Your task to perform on an android device: Open calendar and show me the second week of next month Image 0: 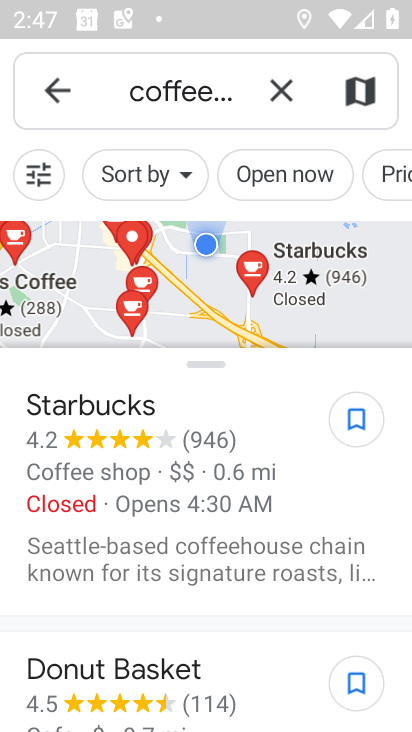
Step 0: press home button
Your task to perform on an android device: Open calendar and show me the second week of next month Image 1: 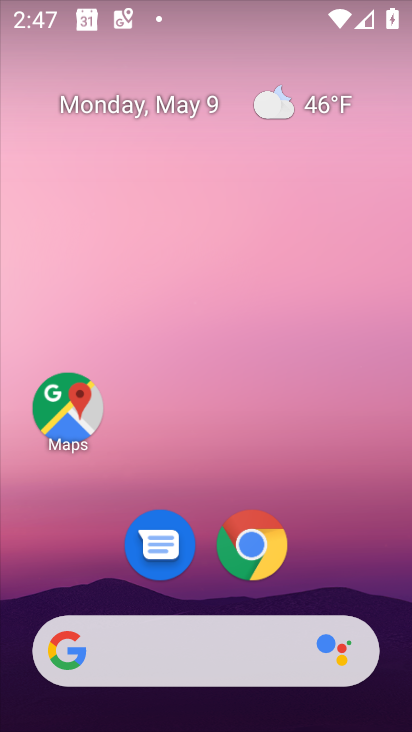
Step 1: drag from (190, 597) to (193, 274)
Your task to perform on an android device: Open calendar and show me the second week of next month Image 2: 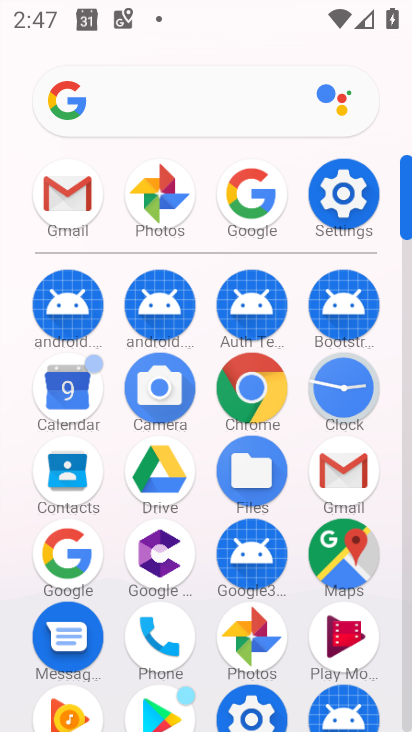
Step 2: click (71, 395)
Your task to perform on an android device: Open calendar and show me the second week of next month Image 3: 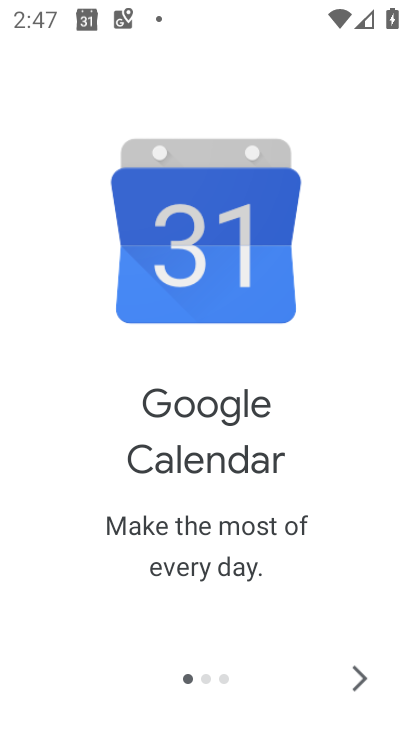
Step 3: click (361, 679)
Your task to perform on an android device: Open calendar and show me the second week of next month Image 4: 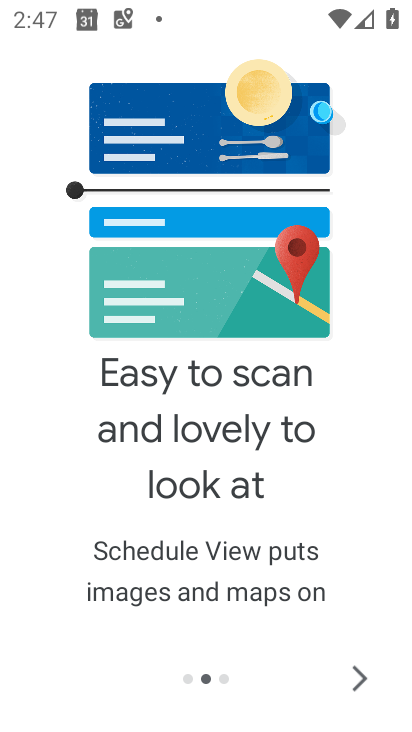
Step 4: click (361, 679)
Your task to perform on an android device: Open calendar and show me the second week of next month Image 5: 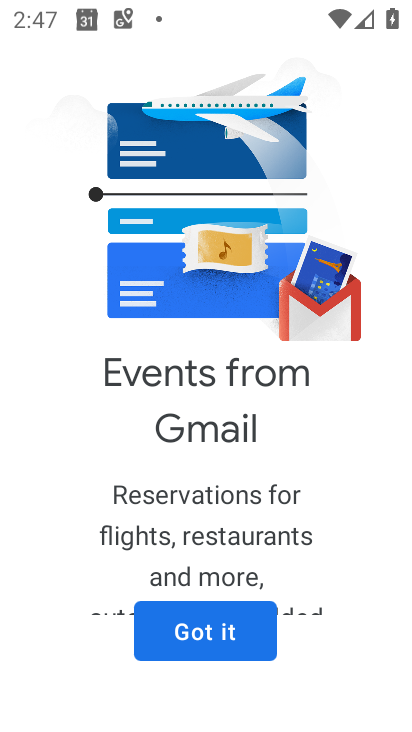
Step 5: click (260, 626)
Your task to perform on an android device: Open calendar and show me the second week of next month Image 6: 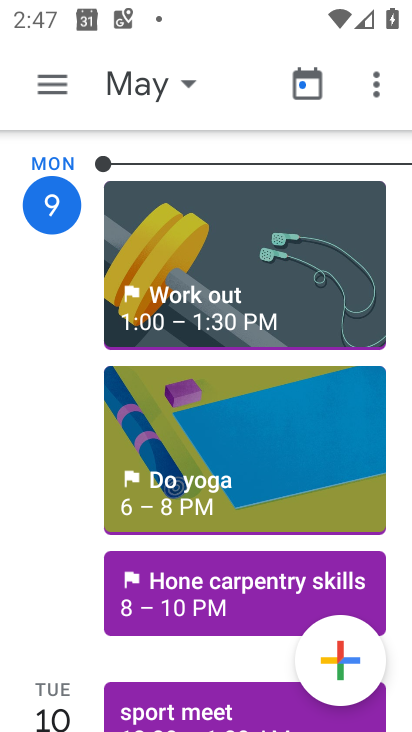
Step 6: click (169, 85)
Your task to perform on an android device: Open calendar and show me the second week of next month Image 7: 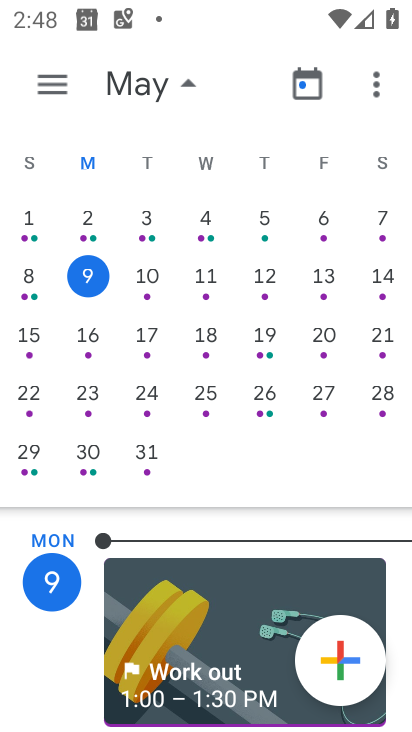
Step 7: drag from (348, 319) to (22, 272)
Your task to perform on an android device: Open calendar and show me the second week of next month Image 8: 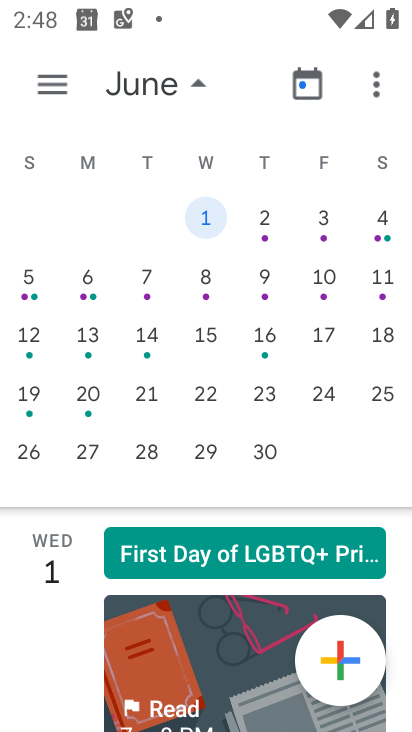
Step 8: click (216, 284)
Your task to perform on an android device: Open calendar and show me the second week of next month Image 9: 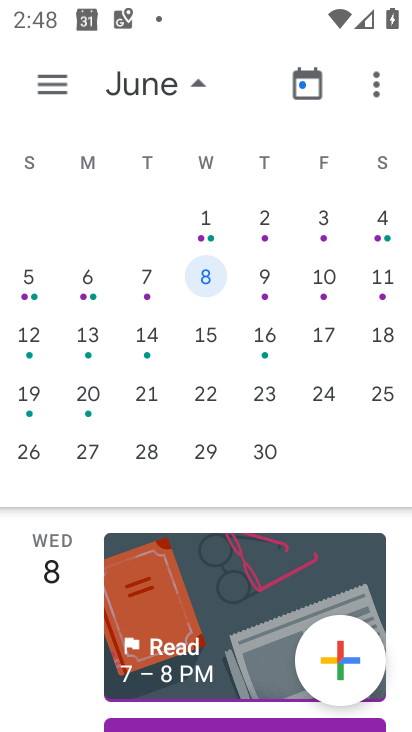
Step 9: click (157, 288)
Your task to perform on an android device: Open calendar and show me the second week of next month Image 10: 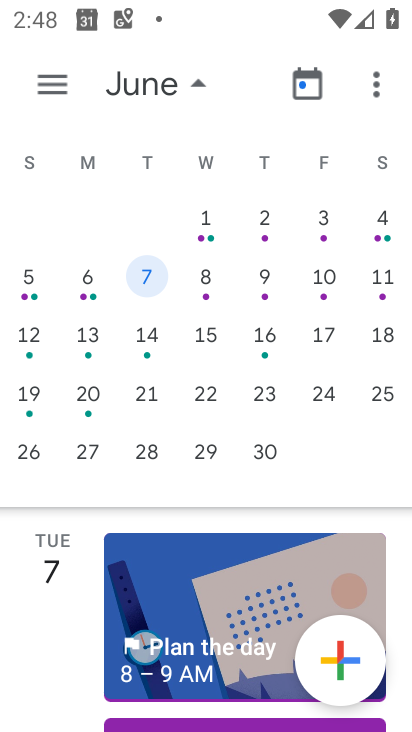
Step 10: click (78, 295)
Your task to perform on an android device: Open calendar and show me the second week of next month Image 11: 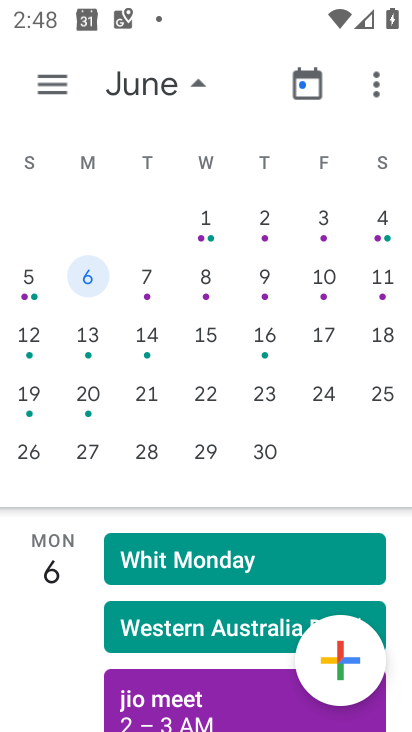
Step 11: task complete